Your task to perform on an android device: delete a single message in the gmail app Image 0: 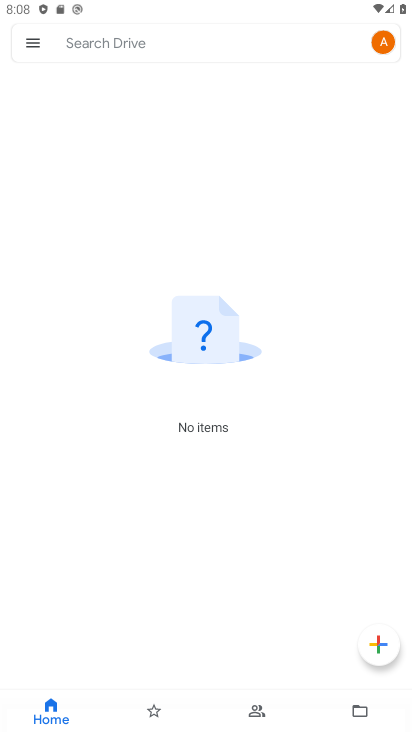
Step 0: press home button
Your task to perform on an android device: delete a single message in the gmail app Image 1: 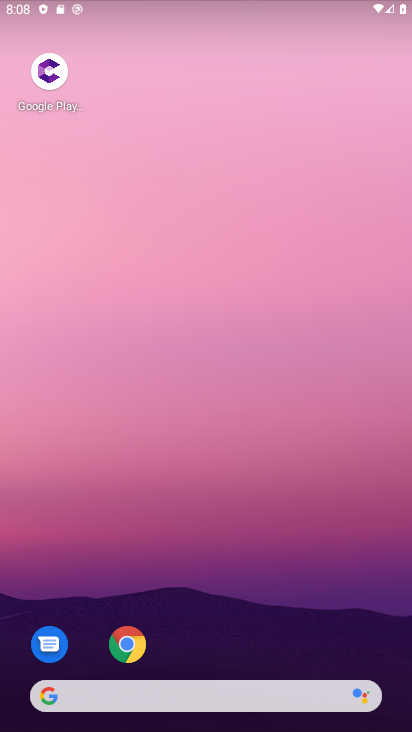
Step 1: drag from (27, 573) to (258, 70)
Your task to perform on an android device: delete a single message in the gmail app Image 2: 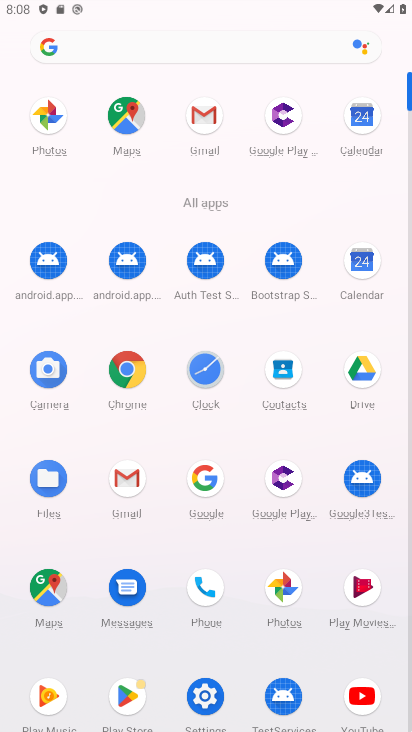
Step 2: click (187, 129)
Your task to perform on an android device: delete a single message in the gmail app Image 3: 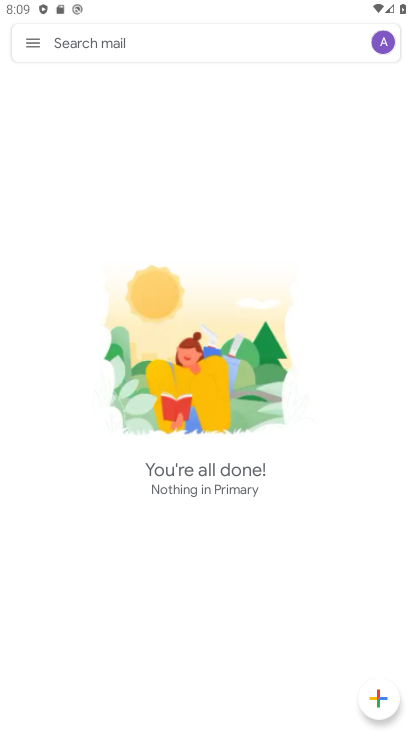
Step 3: click (31, 40)
Your task to perform on an android device: delete a single message in the gmail app Image 4: 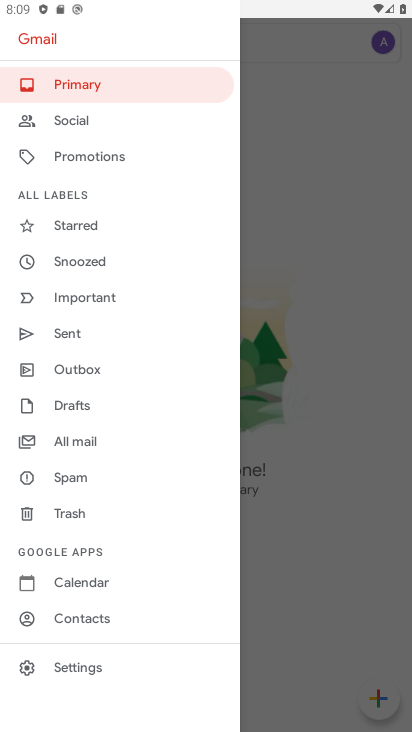
Step 4: click (90, 435)
Your task to perform on an android device: delete a single message in the gmail app Image 5: 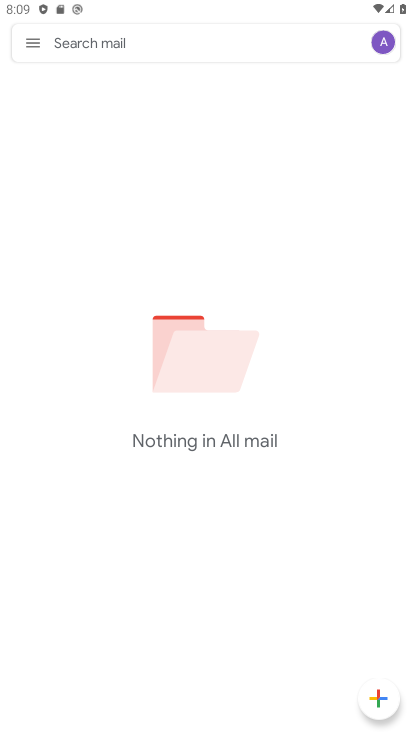
Step 5: task complete